Your task to perform on an android device: open a bookmark in the chrome app Image 0: 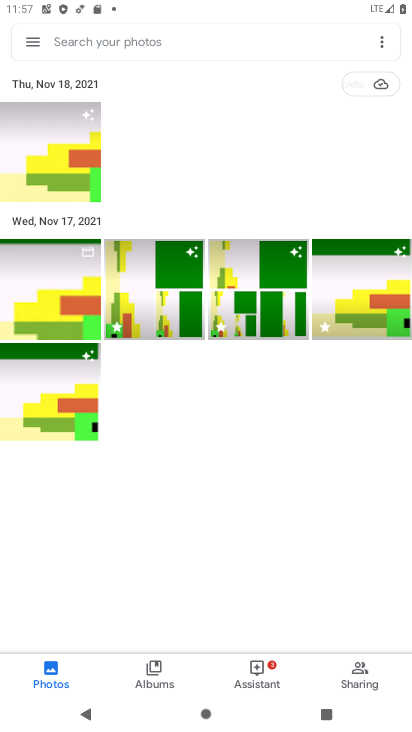
Step 0: press home button
Your task to perform on an android device: open a bookmark in the chrome app Image 1: 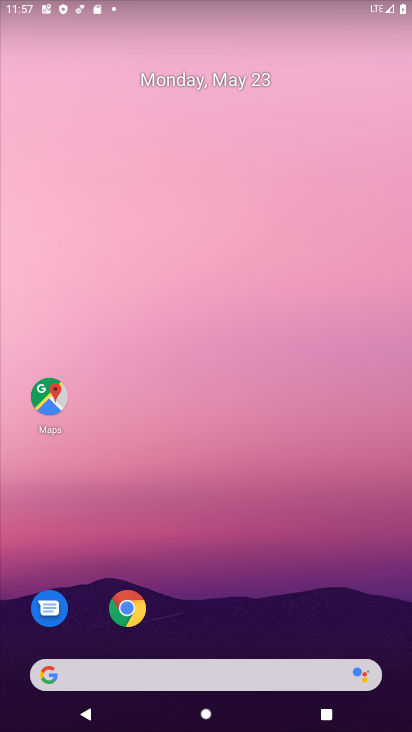
Step 1: click (127, 602)
Your task to perform on an android device: open a bookmark in the chrome app Image 2: 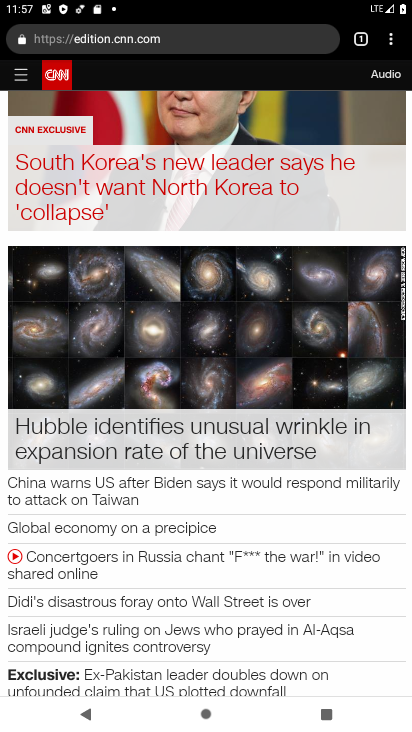
Step 2: click (387, 32)
Your task to perform on an android device: open a bookmark in the chrome app Image 3: 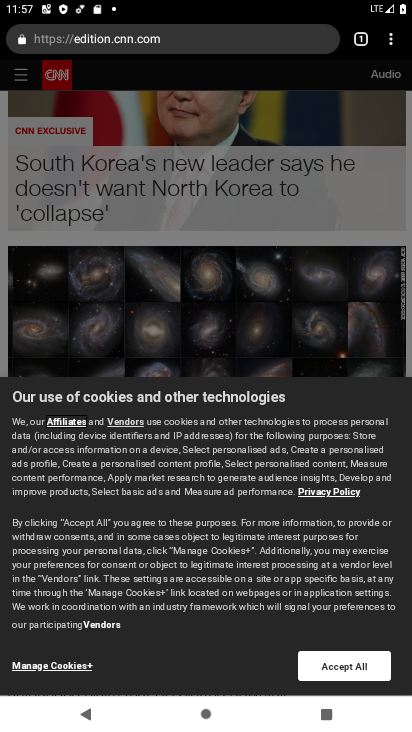
Step 3: click (393, 38)
Your task to perform on an android device: open a bookmark in the chrome app Image 4: 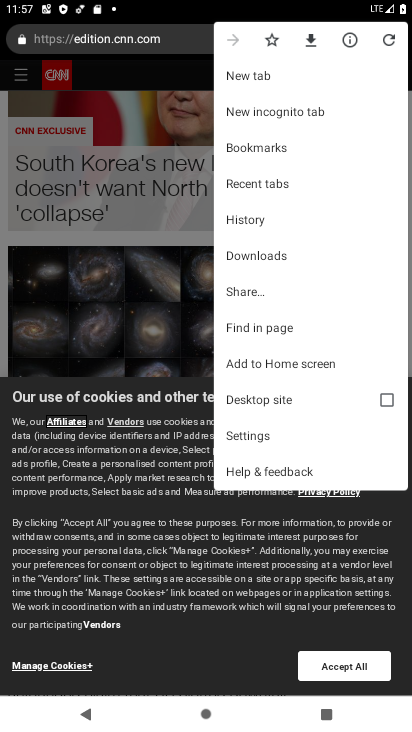
Step 4: click (281, 144)
Your task to perform on an android device: open a bookmark in the chrome app Image 5: 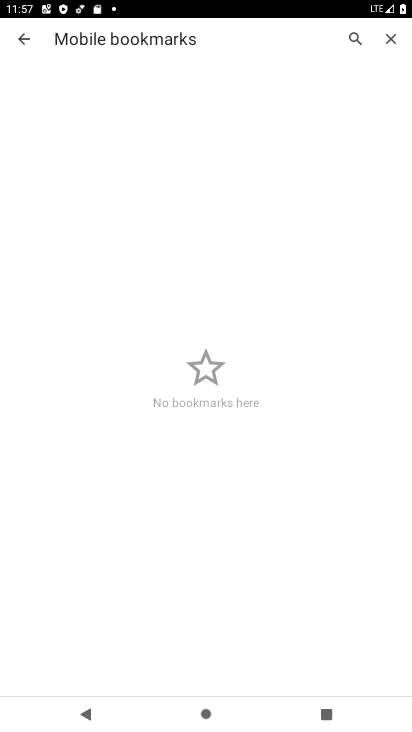
Step 5: task complete